Your task to perform on an android device: Open display settings Image 0: 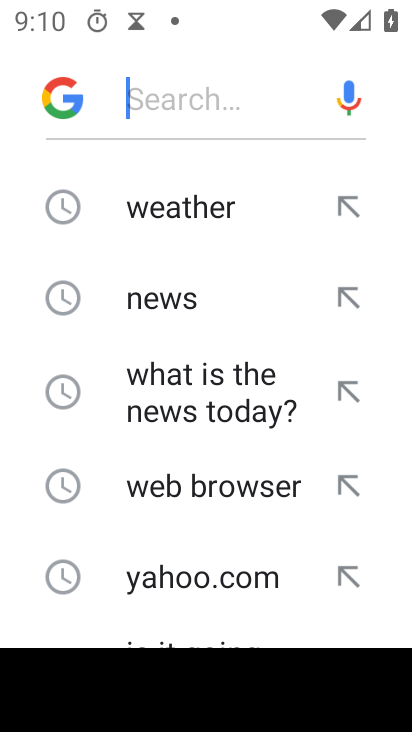
Step 0: press home button
Your task to perform on an android device: Open display settings Image 1: 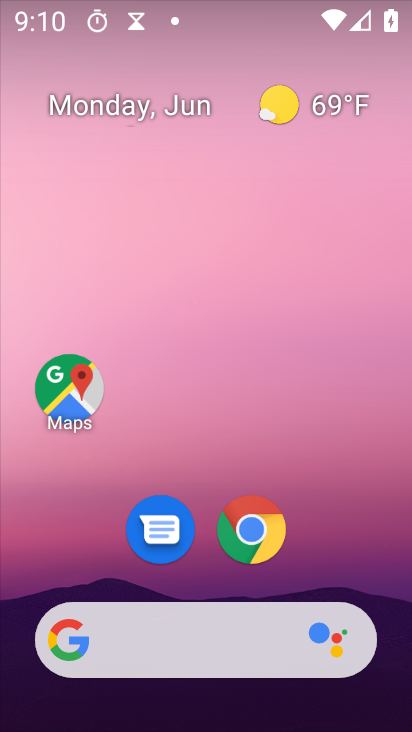
Step 1: drag from (307, 492) to (300, 78)
Your task to perform on an android device: Open display settings Image 2: 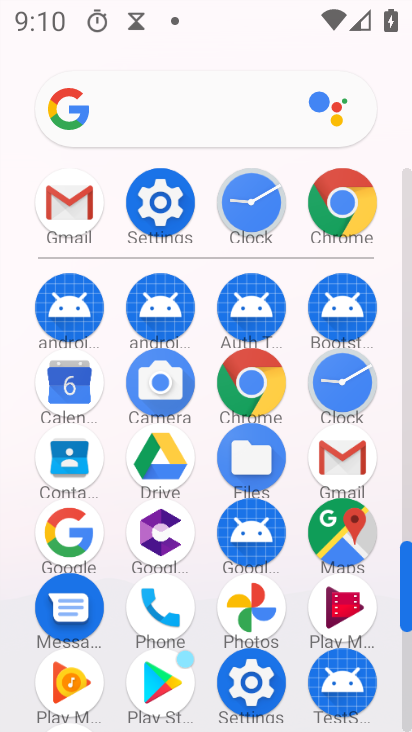
Step 2: click (249, 686)
Your task to perform on an android device: Open display settings Image 3: 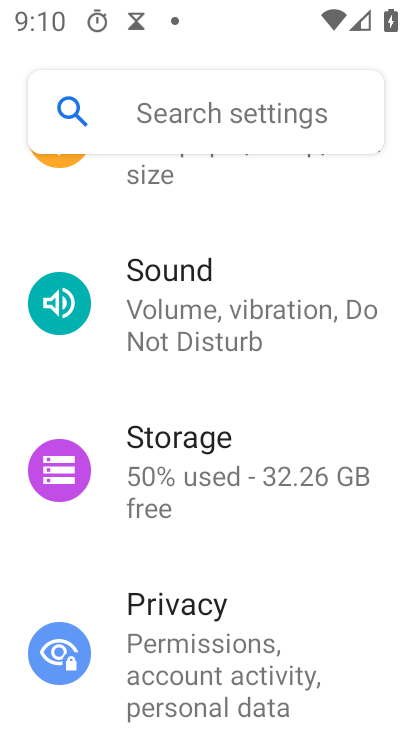
Step 3: drag from (368, 207) to (339, 502)
Your task to perform on an android device: Open display settings Image 4: 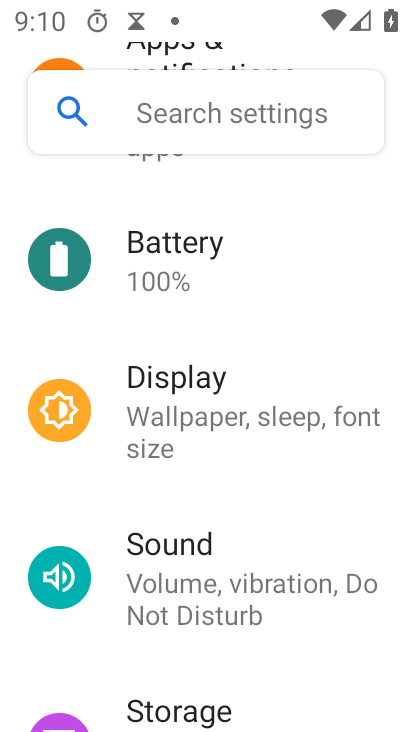
Step 4: click (287, 457)
Your task to perform on an android device: Open display settings Image 5: 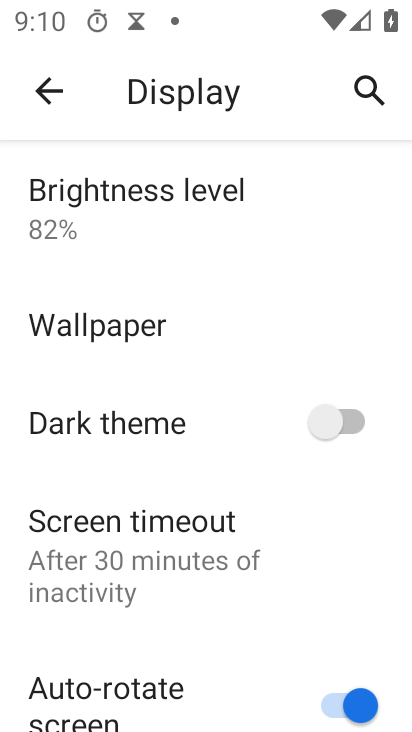
Step 5: task complete